Your task to perform on an android device: Go to Reddit.com Image 0: 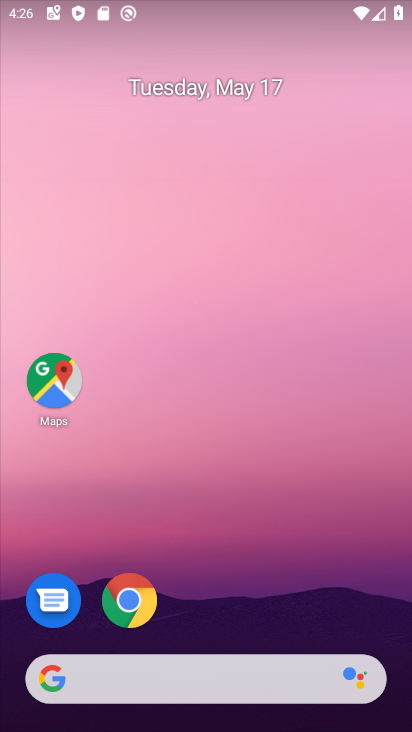
Step 0: click (129, 596)
Your task to perform on an android device: Go to Reddit.com Image 1: 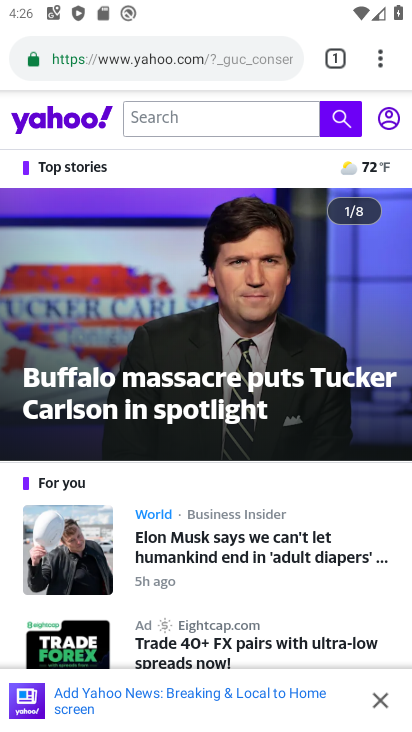
Step 1: click (126, 49)
Your task to perform on an android device: Go to Reddit.com Image 2: 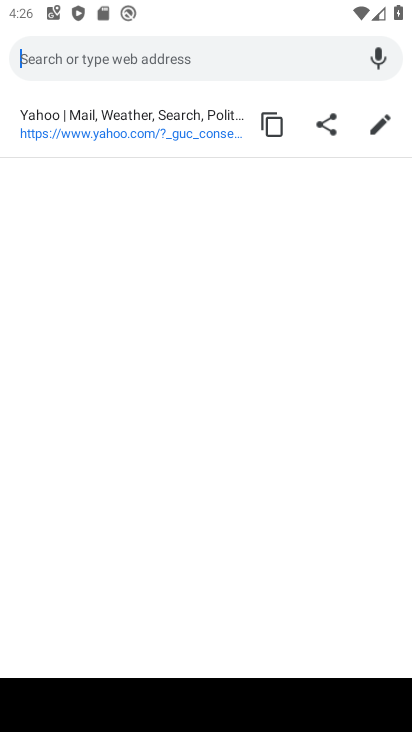
Step 2: type "reddit.com"
Your task to perform on an android device: Go to Reddit.com Image 3: 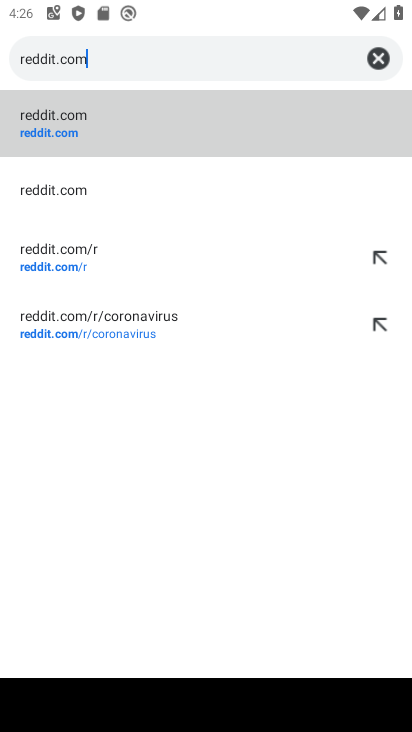
Step 3: click (95, 121)
Your task to perform on an android device: Go to Reddit.com Image 4: 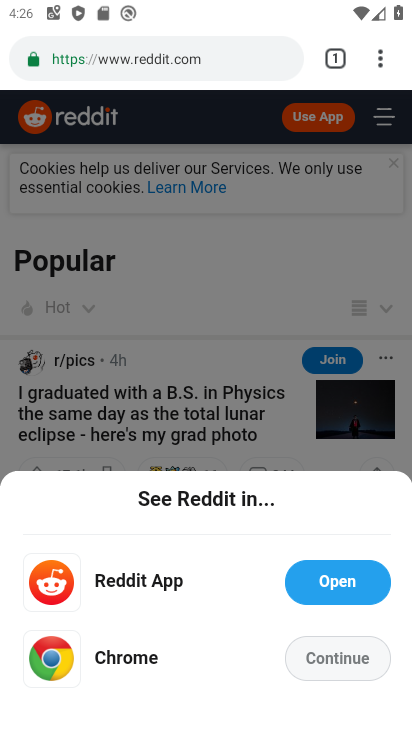
Step 4: task complete